Your task to perform on an android device: change notifications settings Image 0: 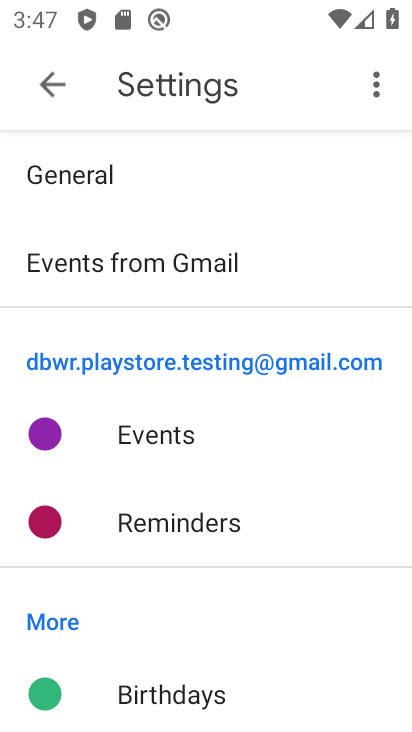
Step 0: press home button
Your task to perform on an android device: change notifications settings Image 1: 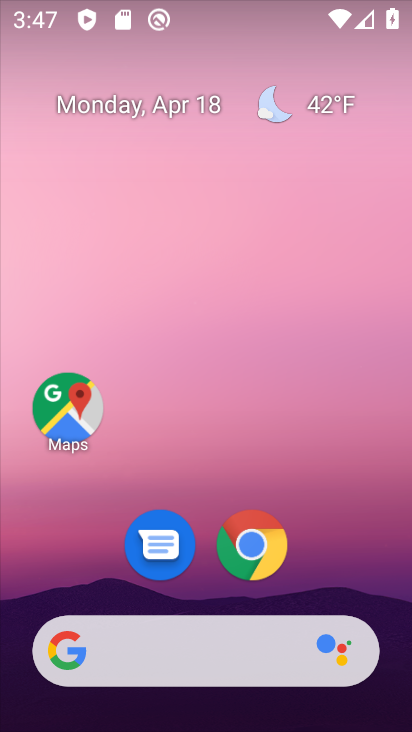
Step 1: drag from (312, 567) to (295, 131)
Your task to perform on an android device: change notifications settings Image 2: 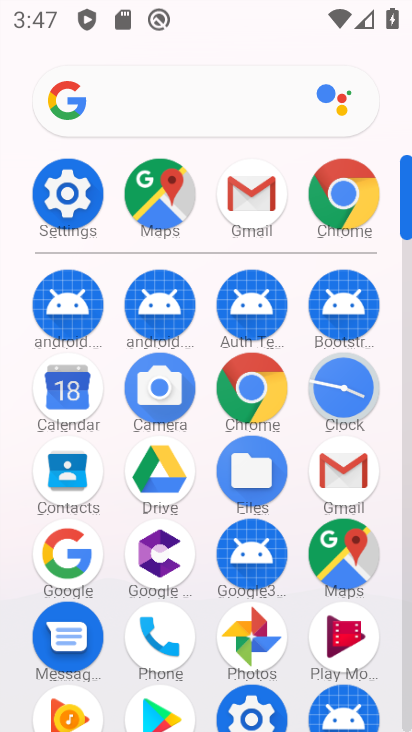
Step 2: click (71, 206)
Your task to perform on an android device: change notifications settings Image 3: 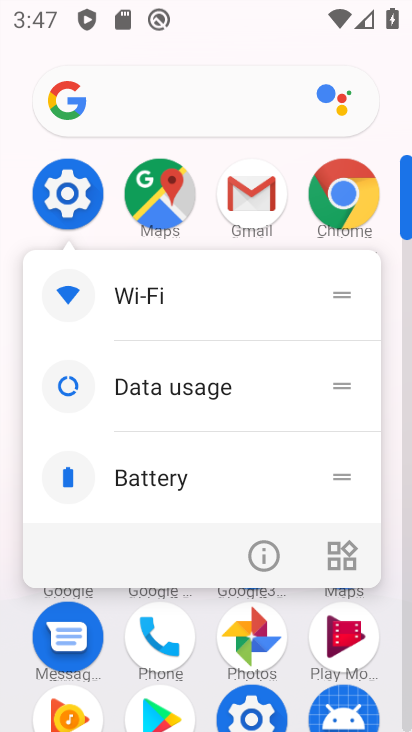
Step 3: click (69, 212)
Your task to perform on an android device: change notifications settings Image 4: 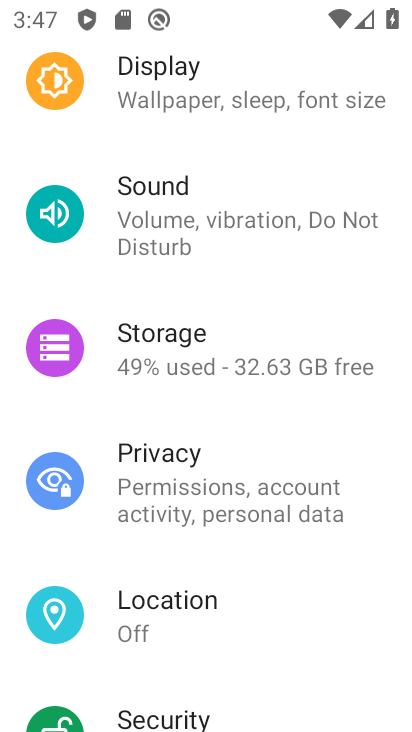
Step 4: drag from (325, 622) to (323, 428)
Your task to perform on an android device: change notifications settings Image 5: 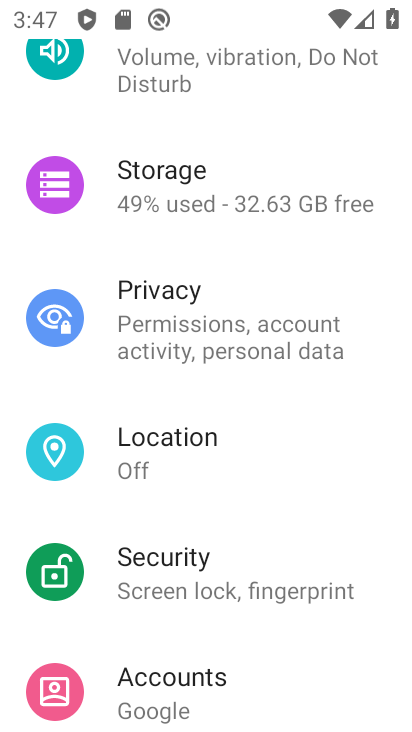
Step 5: drag from (346, 652) to (356, 405)
Your task to perform on an android device: change notifications settings Image 6: 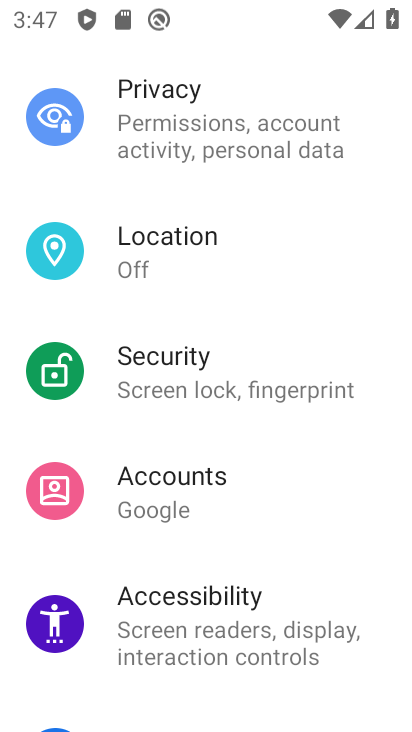
Step 6: drag from (362, 657) to (360, 370)
Your task to perform on an android device: change notifications settings Image 7: 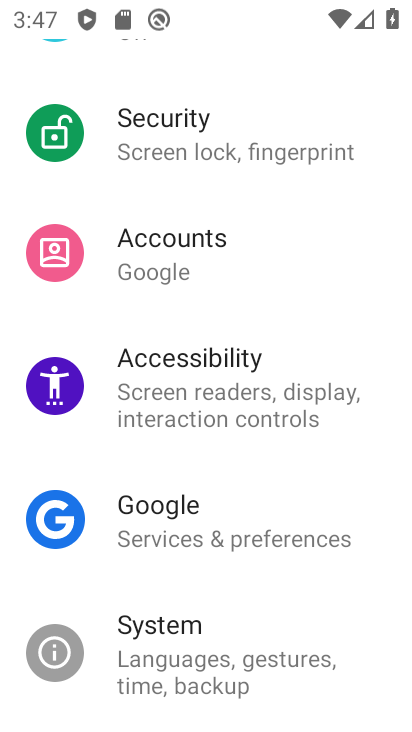
Step 7: drag from (374, 593) to (376, 368)
Your task to perform on an android device: change notifications settings Image 8: 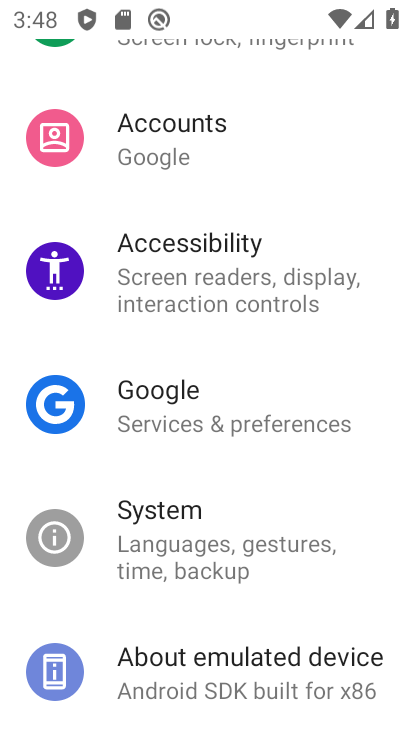
Step 8: drag from (383, 238) to (370, 447)
Your task to perform on an android device: change notifications settings Image 9: 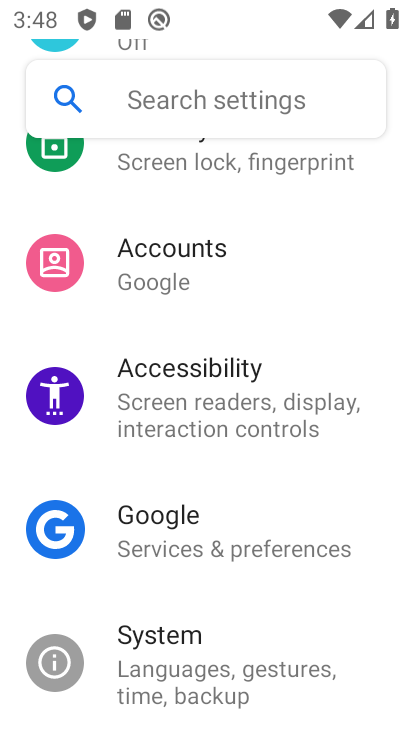
Step 9: drag from (376, 292) to (353, 470)
Your task to perform on an android device: change notifications settings Image 10: 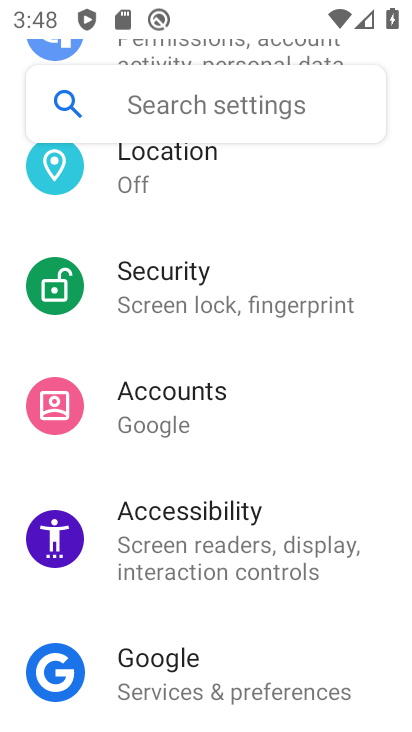
Step 10: drag from (377, 232) to (368, 447)
Your task to perform on an android device: change notifications settings Image 11: 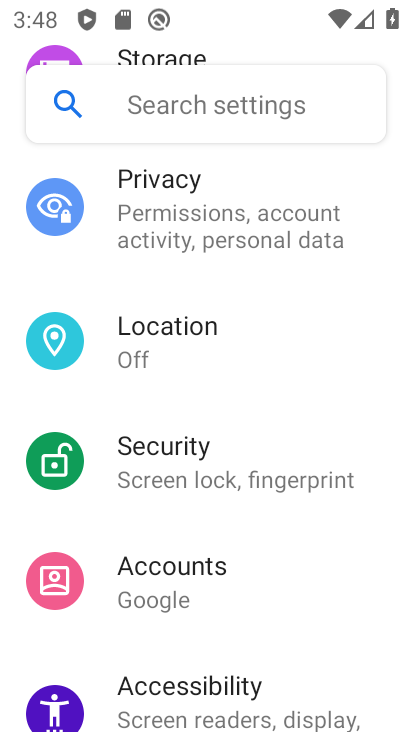
Step 11: drag from (381, 224) to (364, 508)
Your task to perform on an android device: change notifications settings Image 12: 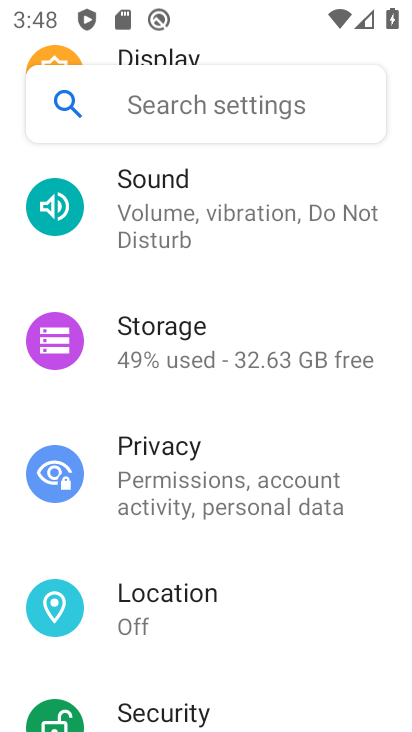
Step 12: drag from (384, 278) to (382, 569)
Your task to perform on an android device: change notifications settings Image 13: 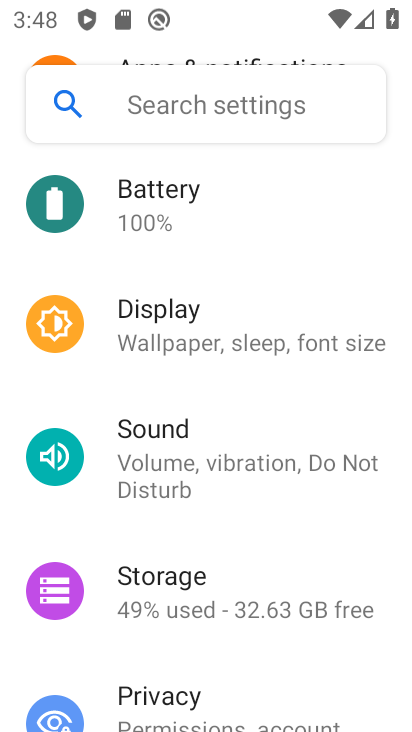
Step 13: drag from (385, 227) to (379, 478)
Your task to perform on an android device: change notifications settings Image 14: 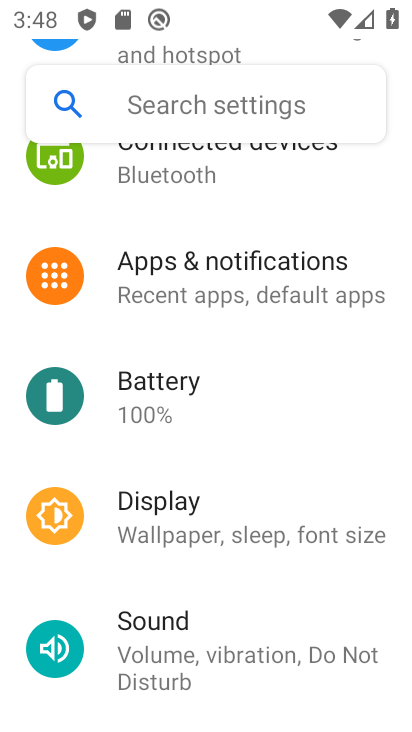
Step 14: click (279, 278)
Your task to perform on an android device: change notifications settings Image 15: 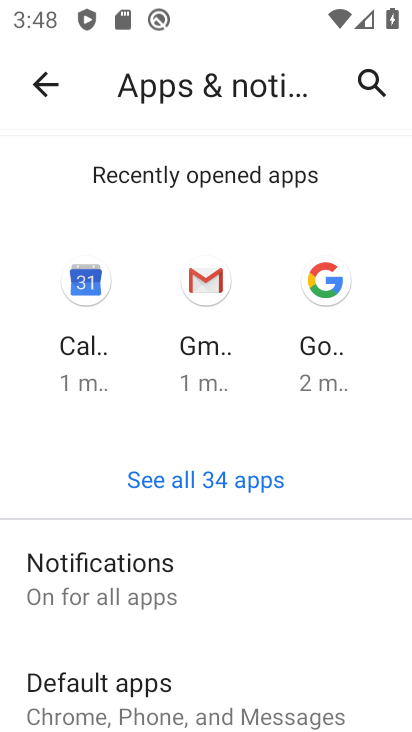
Step 15: click (143, 581)
Your task to perform on an android device: change notifications settings Image 16: 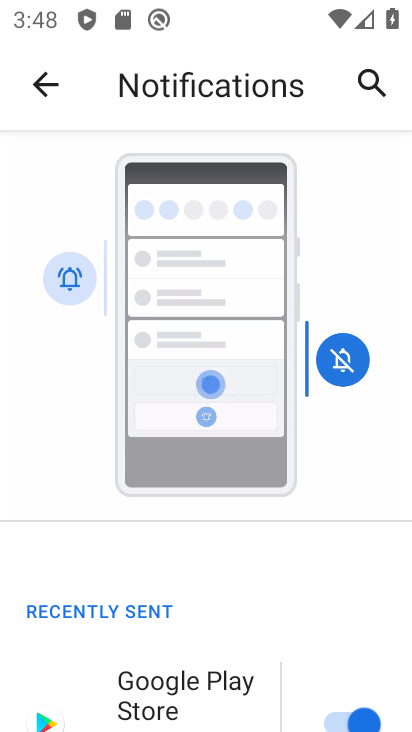
Step 16: drag from (276, 610) to (311, 285)
Your task to perform on an android device: change notifications settings Image 17: 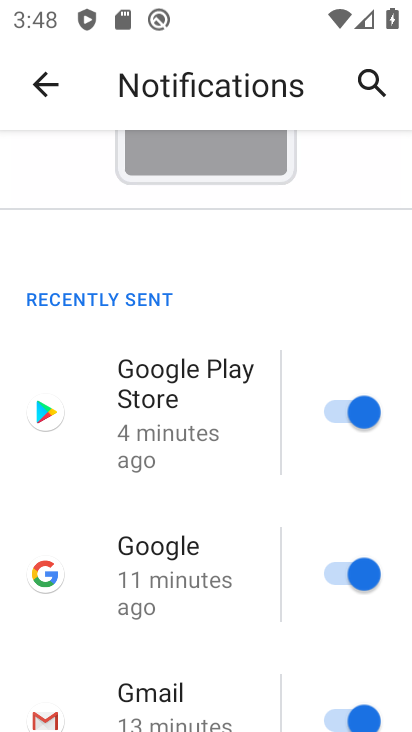
Step 17: drag from (263, 585) to (264, 372)
Your task to perform on an android device: change notifications settings Image 18: 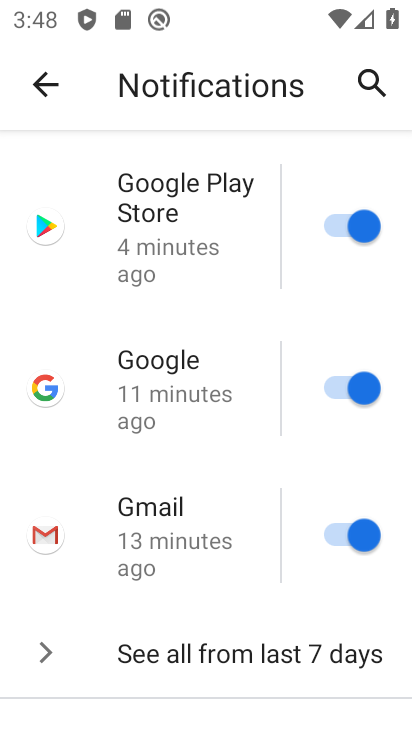
Step 18: click (358, 209)
Your task to perform on an android device: change notifications settings Image 19: 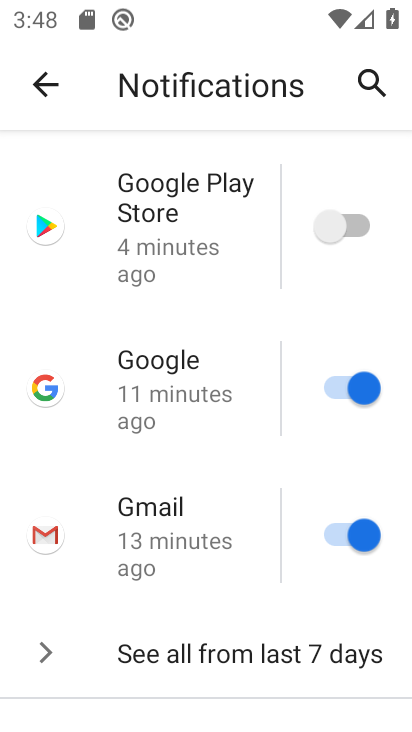
Step 19: click (359, 380)
Your task to perform on an android device: change notifications settings Image 20: 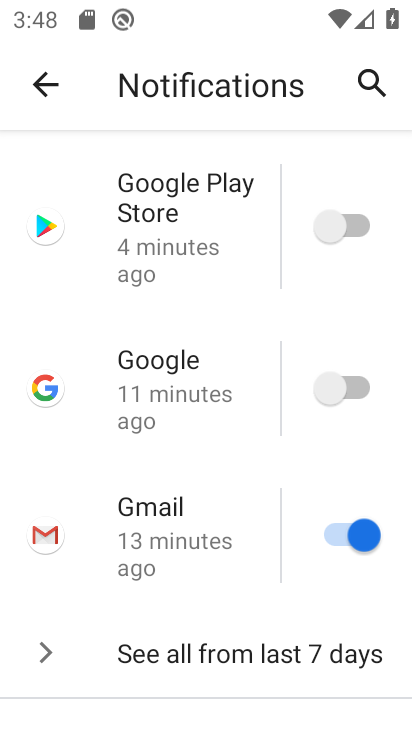
Step 20: click (354, 541)
Your task to perform on an android device: change notifications settings Image 21: 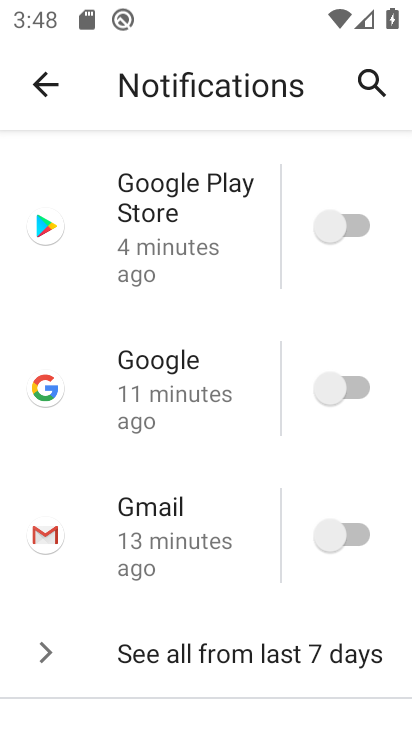
Step 21: task complete